Your task to perform on an android device: allow notifications from all sites in the chrome app Image 0: 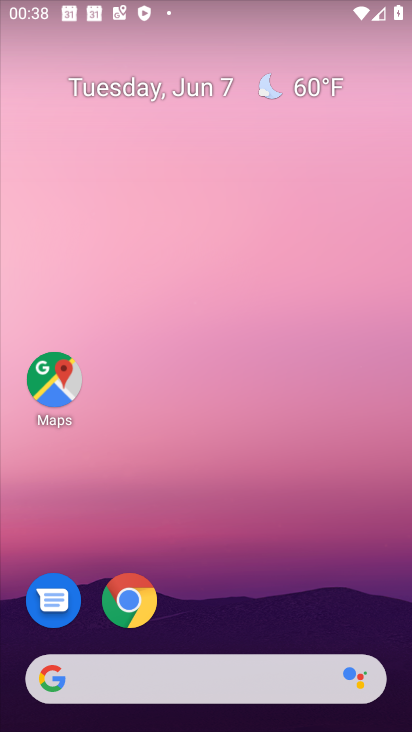
Step 0: click (129, 611)
Your task to perform on an android device: allow notifications from all sites in the chrome app Image 1: 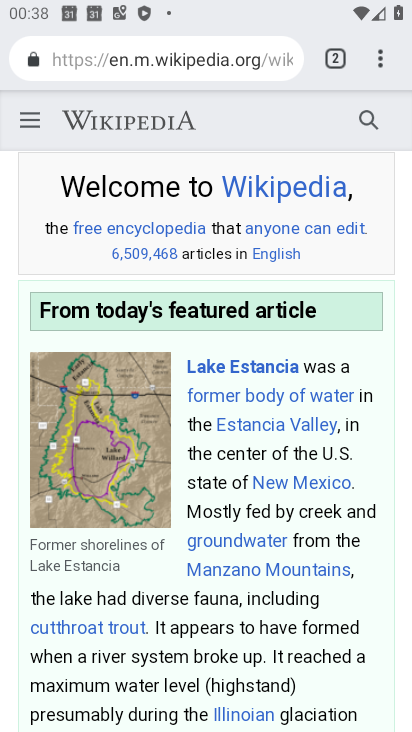
Step 1: click (381, 64)
Your task to perform on an android device: allow notifications from all sites in the chrome app Image 2: 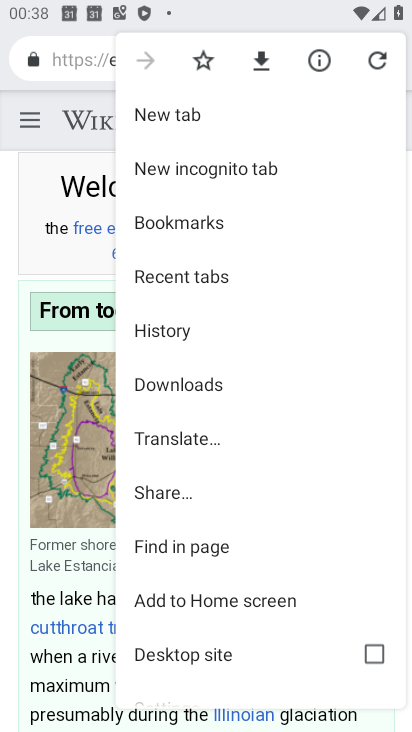
Step 2: drag from (210, 474) to (210, 207)
Your task to perform on an android device: allow notifications from all sites in the chrome app Image 3: 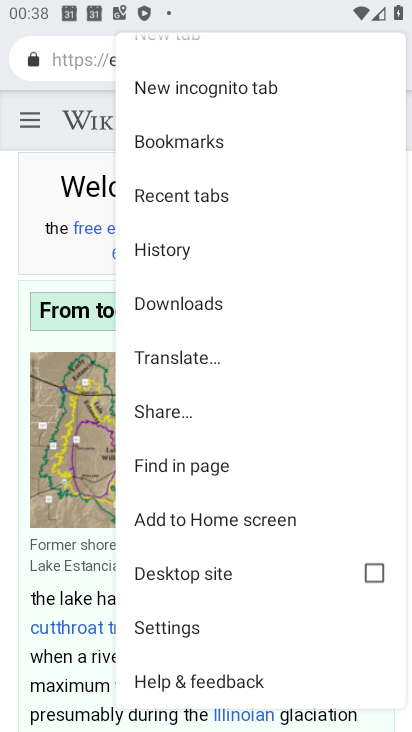
Step 3: click (180, 626)
Your task to perform on an android device: allow notifications from all sites in the chrome app Image 4: 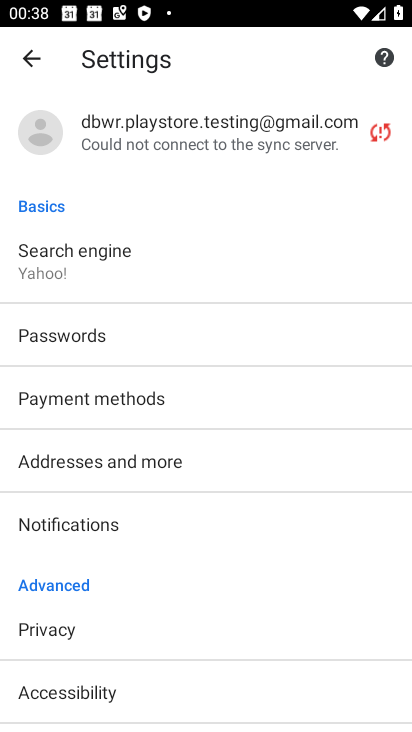
Step 4: drag from (108, 666) to (142, 360)
Your task to perform on an android device: allow notifications from all sites in the chrome app Image 5: 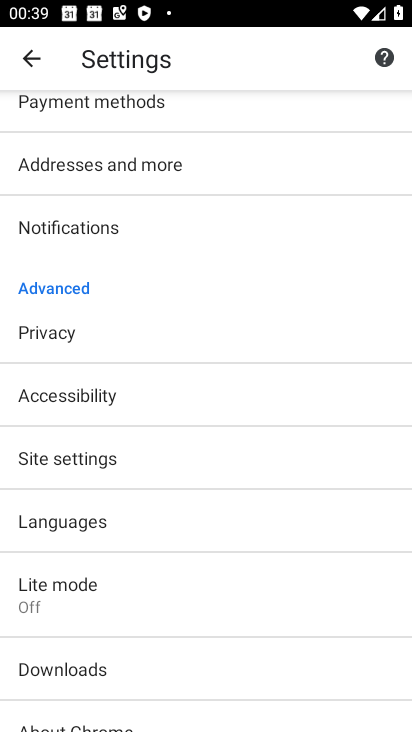
Step 5: click (67, 461)
Your task to perform on an android device: allow notifications from all sites in the chrome app Image 6: 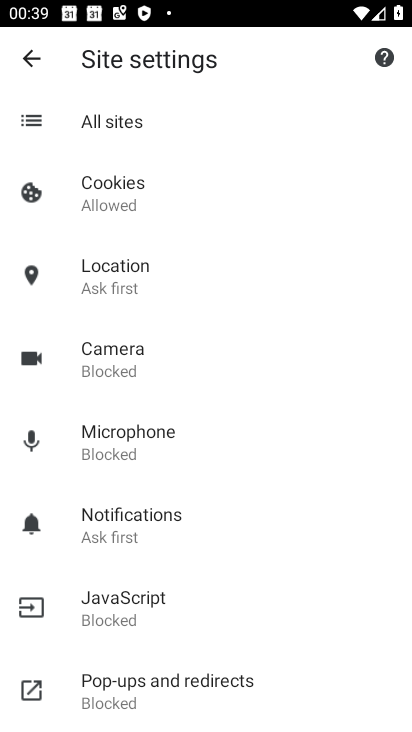
Step 6: click (130, 524)
Your task to perform on an android device: allow notifications from all sites in the chrome app Image 7: 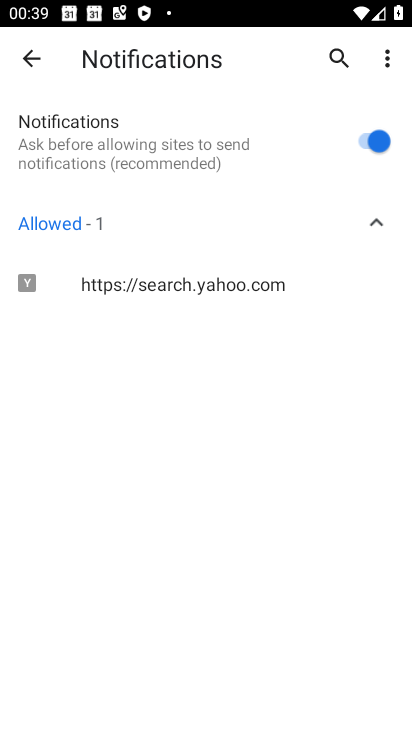
Step 7: task complete